Your task to perform on an android device: Go to internet settings Image 0: 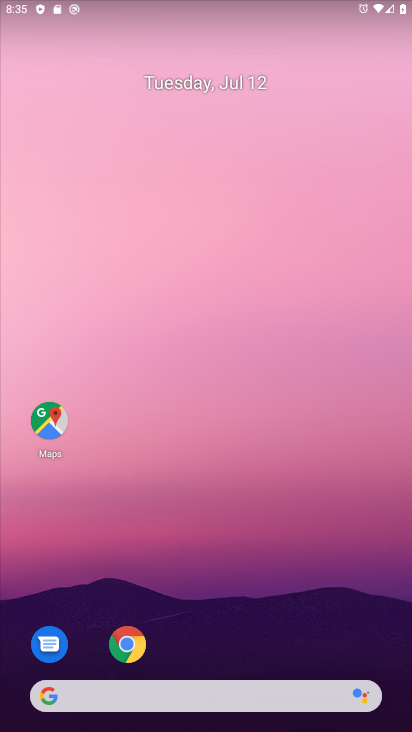
Step 0: drag from (23, 715) to (207, 218)
Your task to perform on an android device: Go to internet settings Image 1: 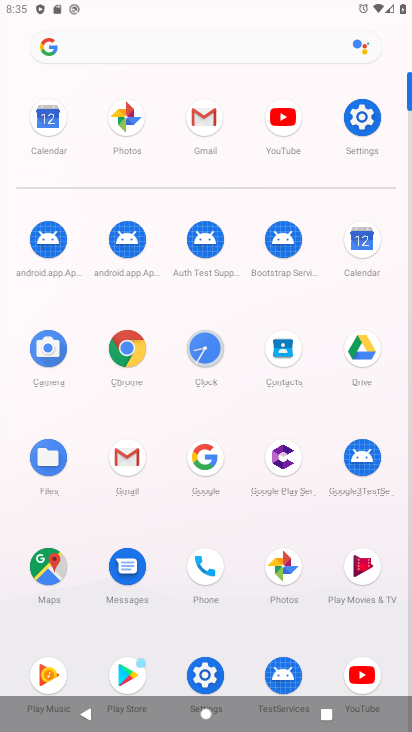
Step 1: click (200, 676)
Your task to perform on an android device: Go to internet settings Image 2: 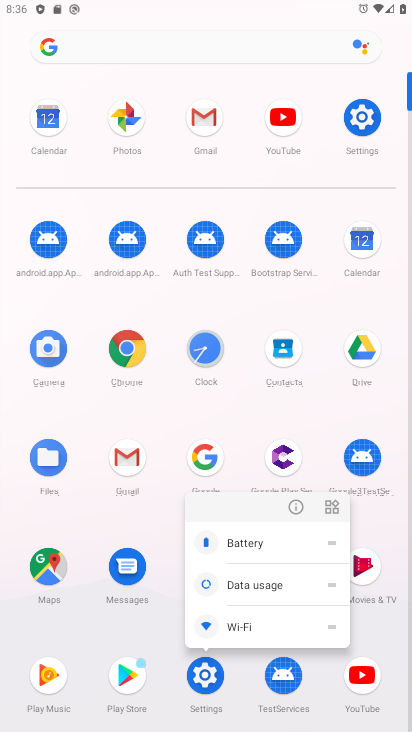
Step 2: click (202, 670)
Your task to perform on an android device: Go to internet settings Image 3: 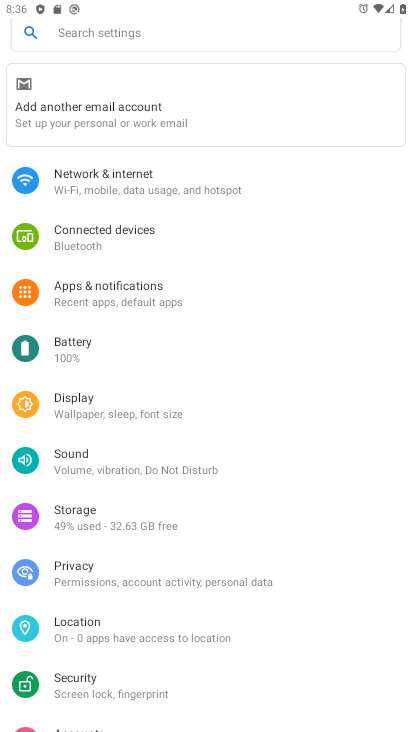
Step 3: click (106, 192)
Your task to perform on an android device: Go to internet settings Image 4: 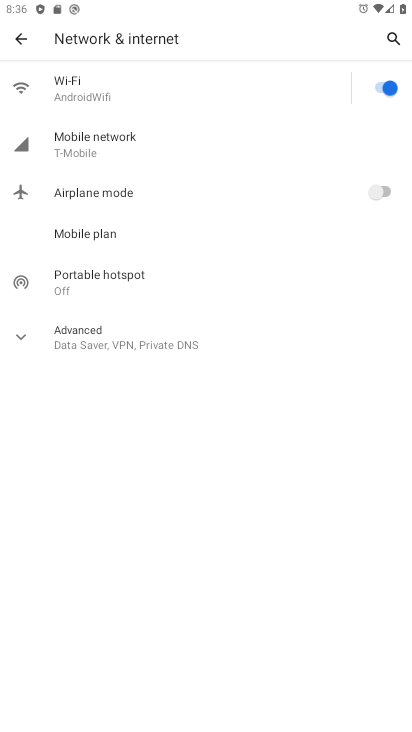
Step 4: task complete